Your task to perform on an android device: add a contact in the contacts app Image 0: 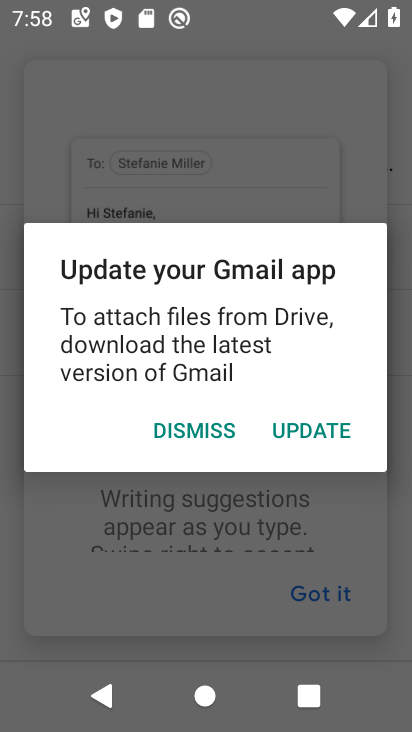
Step 0: press home button
Your task to perform on an android device: add a contact in the contacts app Image 1: 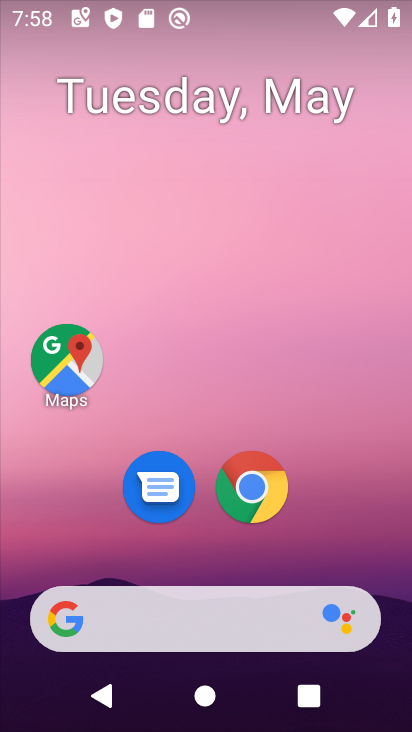
Step 1: drag from (373, 567) to (352, 243)
Your task to perform on an android device: add a contact in the contacts app Image 2: 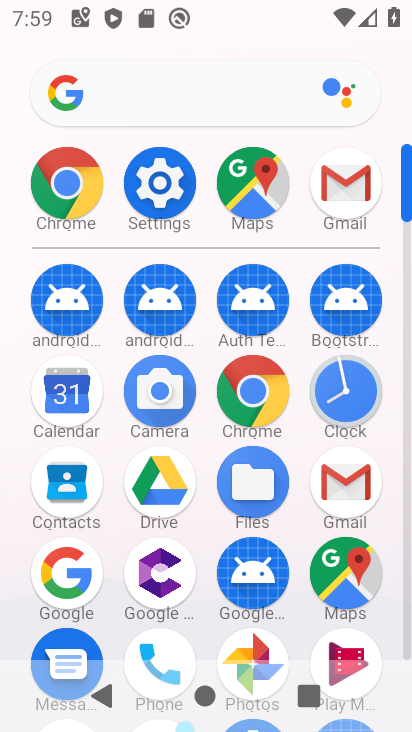
Step 2: click (73, 490)
Your task to perform on an android device: add a contact in the contacts app Image 3: 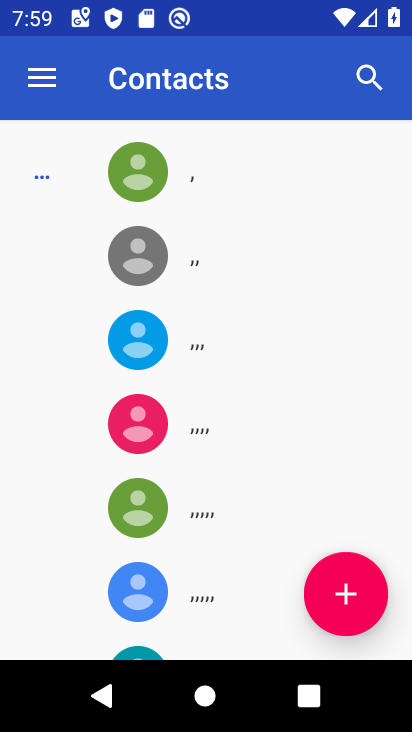
Step 3: click (340, 586)
Your task to perform on an android device: add a contact in the contacts app Image 4: 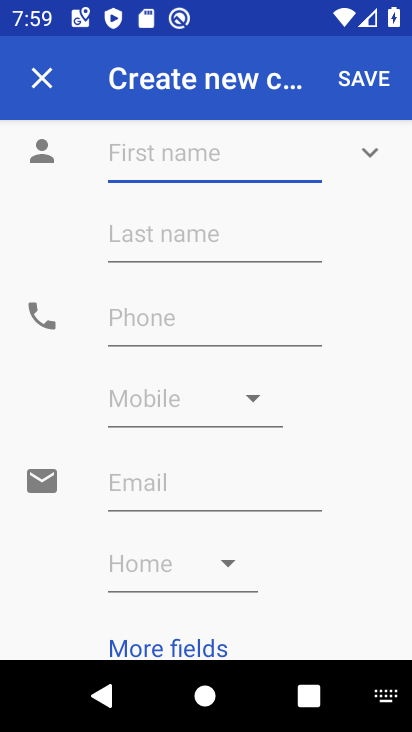
Step 4: click (266, 165)
Your task to perform on an android device: add a contact in the contacts app Image 5: 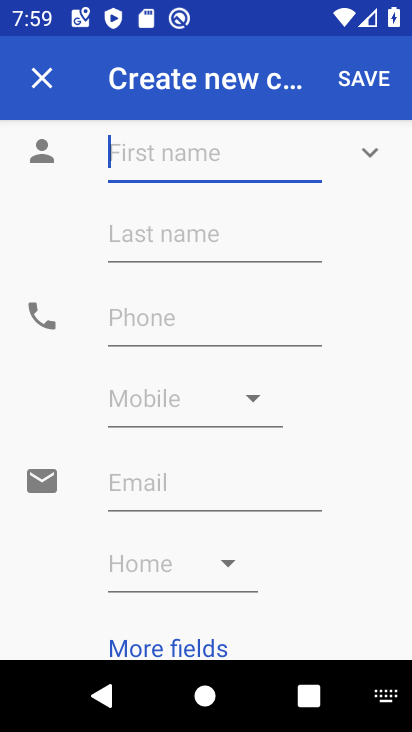
Step 5: type "virus"
Your task to perform on an android device: add a contact in the contacts app Image 6: 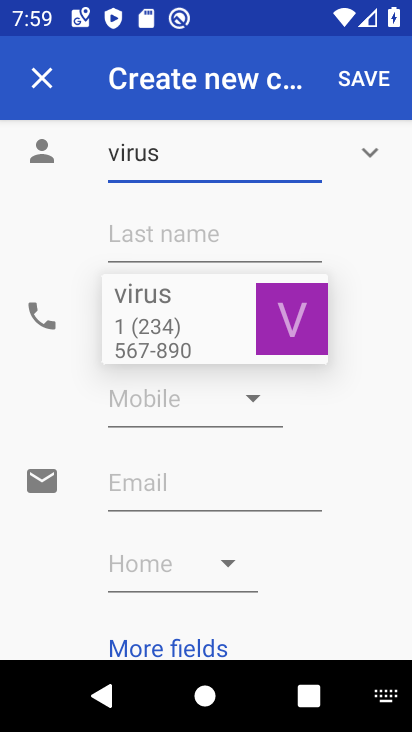
Step 6: click (408, 286)
Your task to perform on an android device: add a contact in the contacts app Image 7: 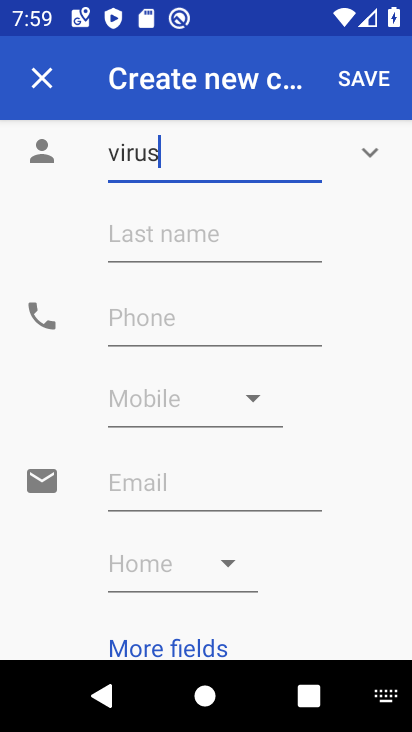
Step 7: click (219, 324)
Your task to perform on an android device: add a contact in the contacts app Image 8: 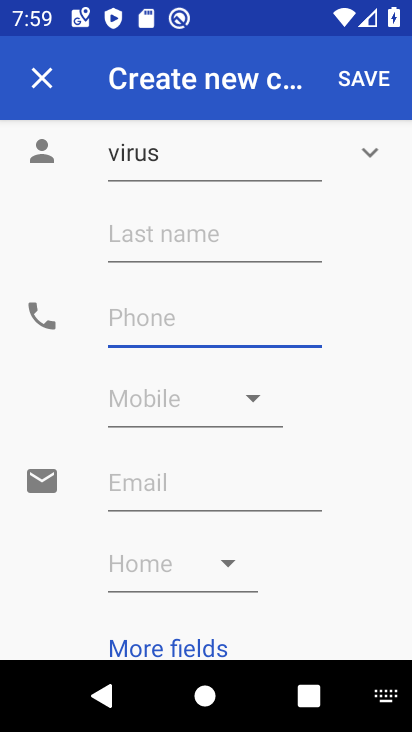
Step 8: type "1233455667788900"
Your task to perform on an android device: add a contact in the contacts app Image 9: 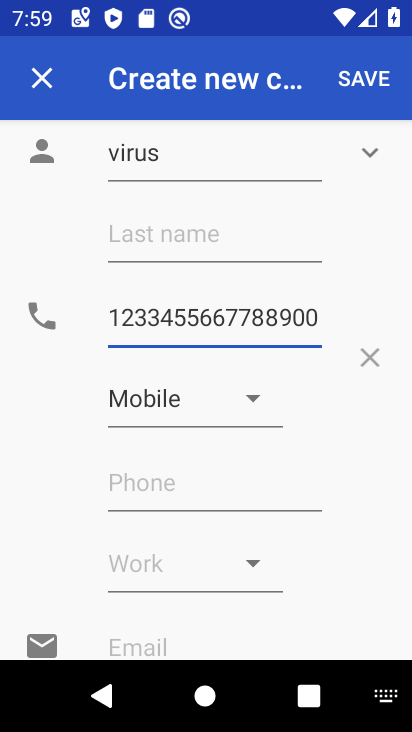
Step 9: click (366, 71)
Your task to perform on an android device: add a contact in the contacts app Image 10: 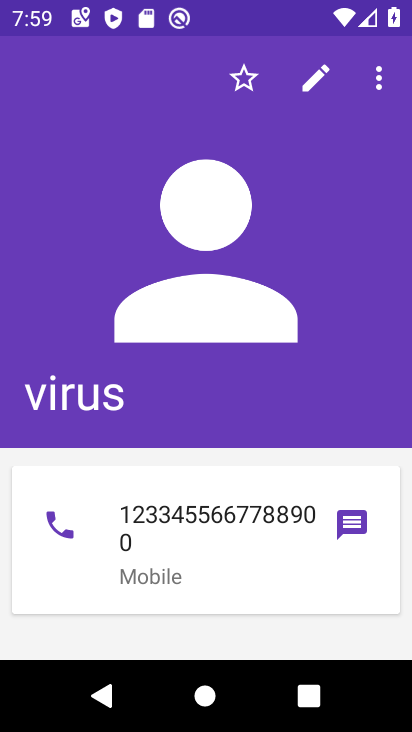
Step 10: task complete